Your task to perform on an android device: toggle wifi Image 0: 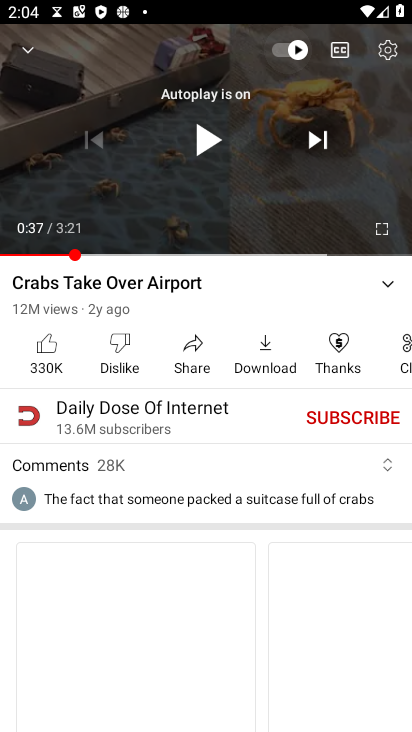
Step 0: press home button
Your task to perform on an android device: toggle wifi Image 1: 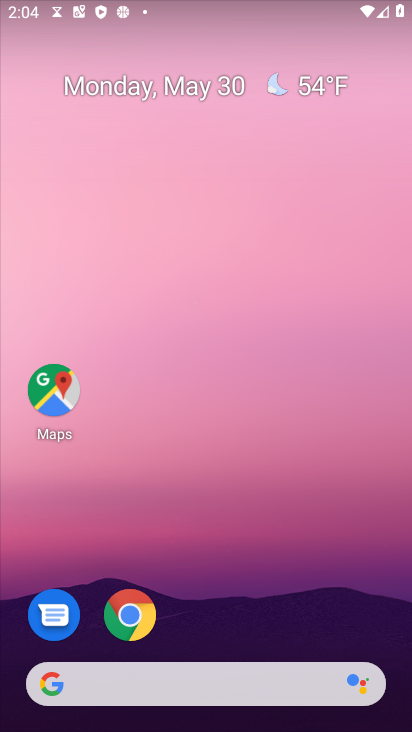
Step 1: drag from (344, 526) to (286, 66)
Your task to perform on an android device: toggle wifi Image 2: 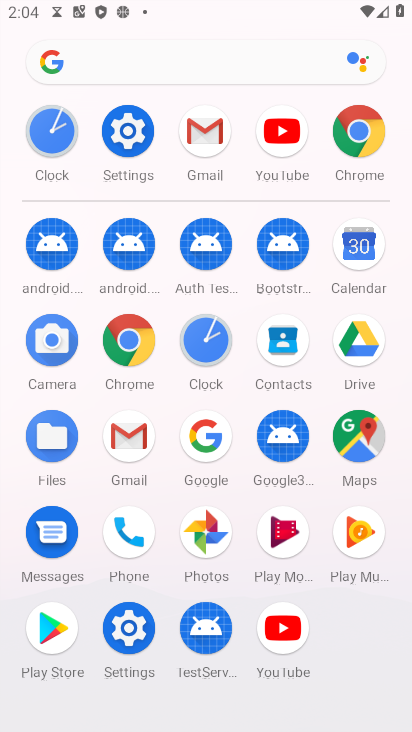
Step 2: click (97, 149)
Your task to perform on an android device: toggle wifi Image 3: 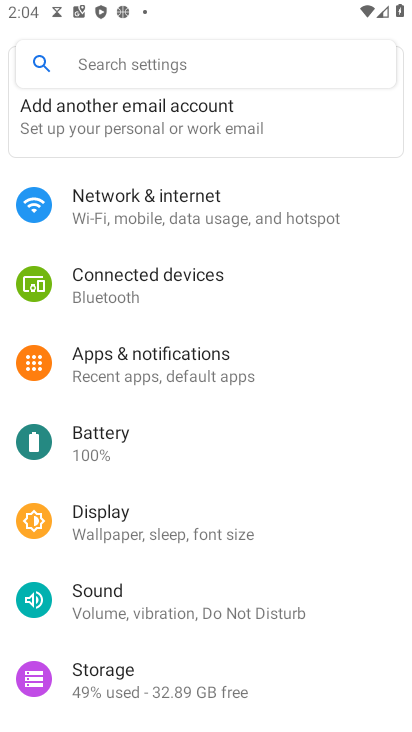
Step 3: click (132, 207)
Your task to perform on an android device: toggle wifi Image 4: 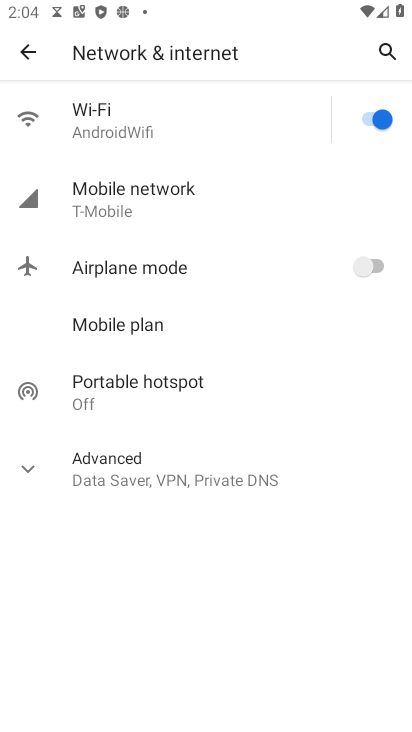
Step 4: click (152, 116)
Your task to perform on an android device: toggle wifi Image 5: 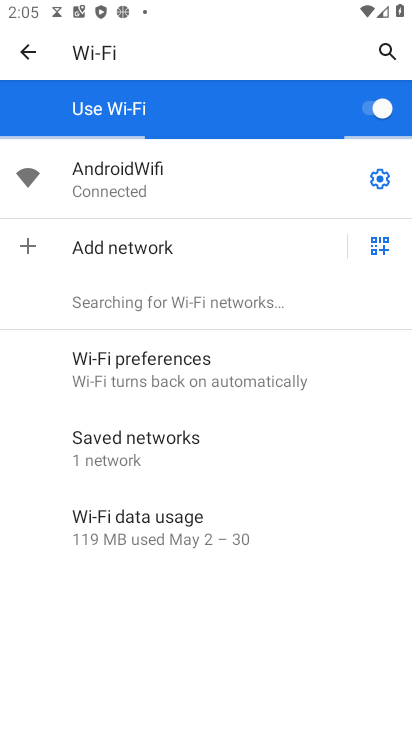
Step 5: task complete